Your task to perform on an android device: Open CNN.com Image 0: 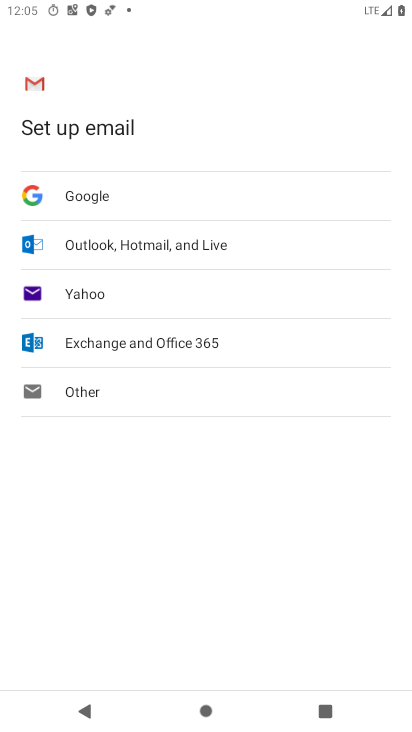
Step 0: press home button
Your task to perform on an android device: Open CNN.com Image 1: 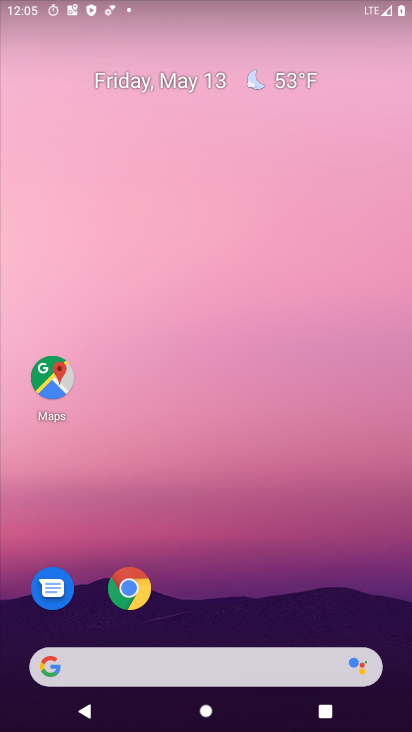
Step 1: click (131, 586)
Your task to perform on an android device: Open CNN.com Image 2: 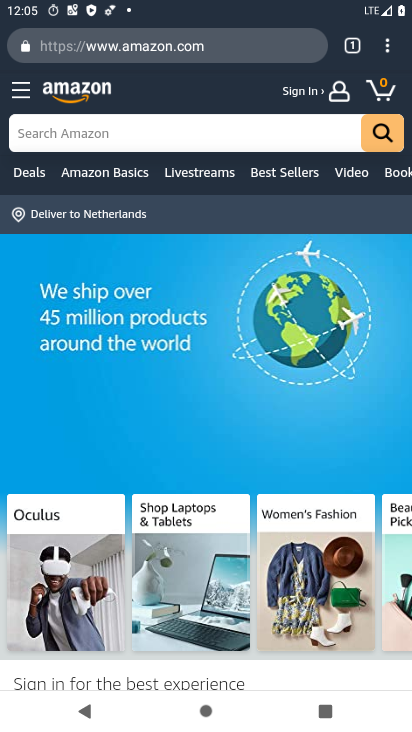
Step 2: click (198, 32)
Your task to perform on an android device: Open CNN.com Image 3: 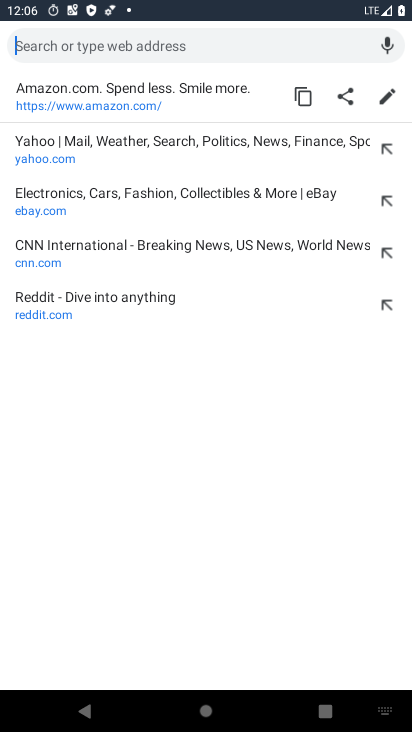
Step 3: type "cnn.com"
Your task to perform on an android device: Open CNN.com Image 4: 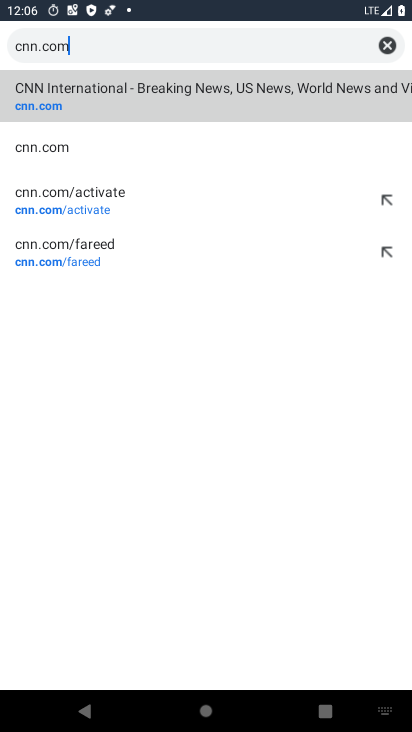
Step 4: click (42, 101)
Your task to perform on an android device: Open CNN.com Image 5: 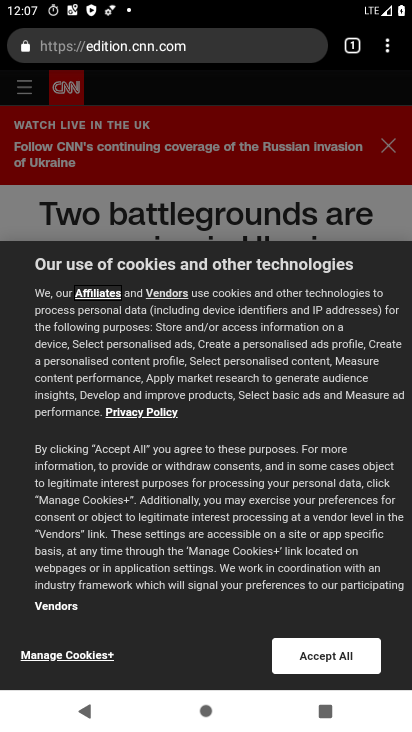
Step 5: task complete